Your task to perform on an android device: Is it going to rain this weekend? Image 0: 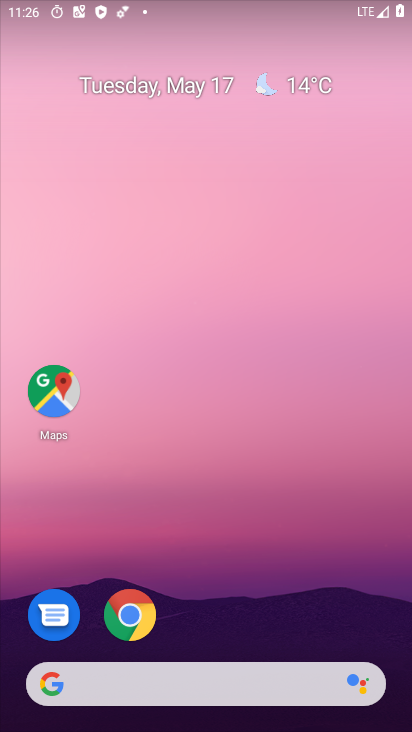
Step 0: press home button
Your task to perform on an android device: Is it going to rain this weekend? Image 1: 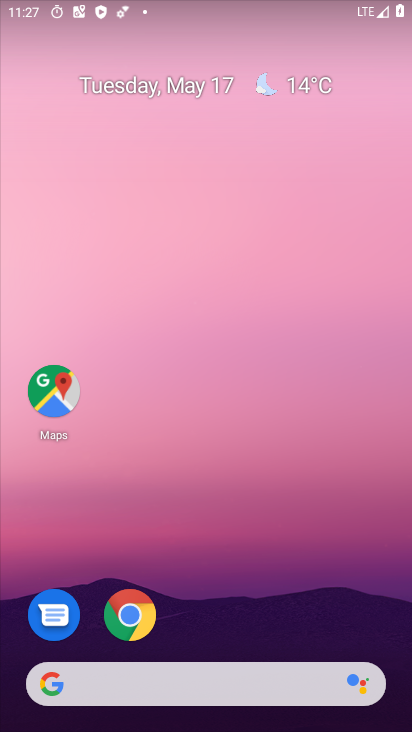
Step 1: click (312, 85)
Your task to perform on an android device: Is it going to rain this weekend? Image 2: 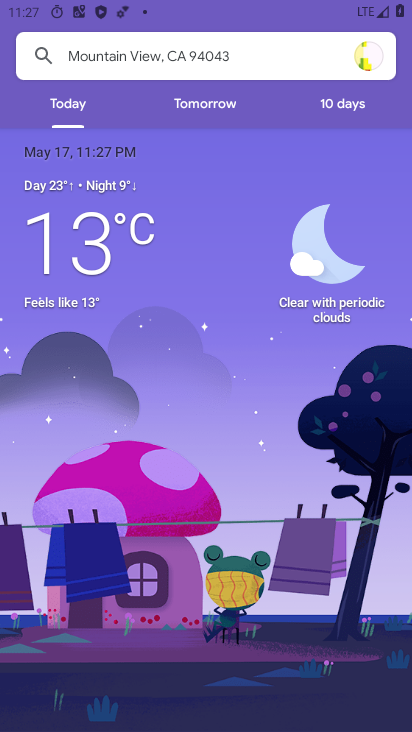
Step 2: click (347, 98)
Your task to perform on an android device: Is it going to rain this weekend? Image 3: 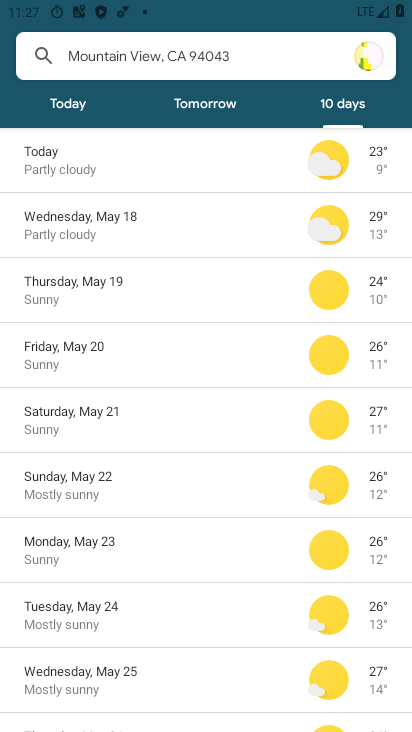
Step 3: drag from (278, 603) to (306, 343)
Your task to perform on an android device: Is it going to rain this weekend? Image 4: 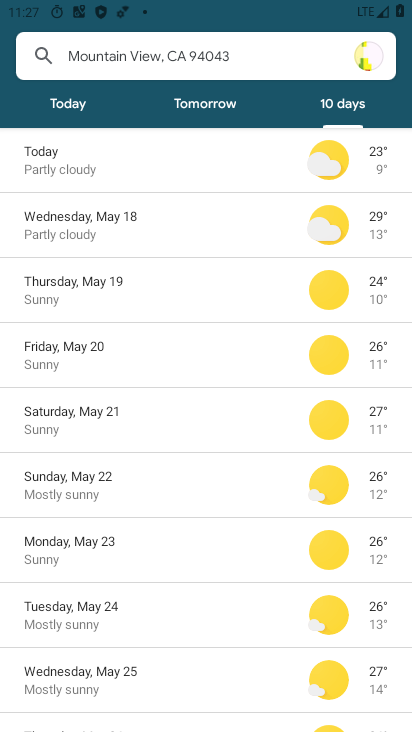
Step 4: click (220, 435)
Your task to perform on an android device: Is it going to rain this weekend? Image 5: 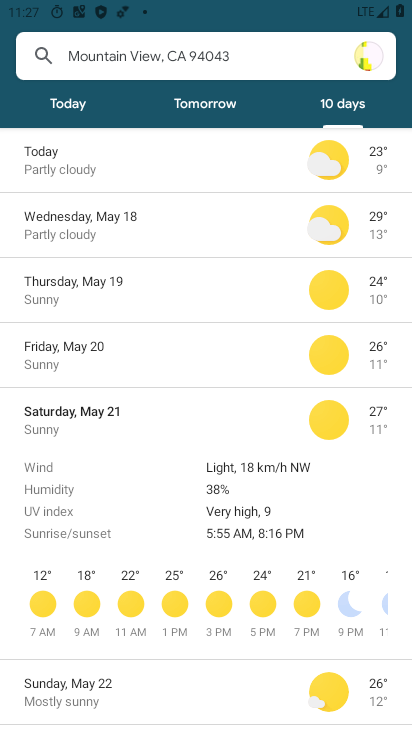
Step 5: task complete